Your task to perform on an android device: Open sound settings Image 0: 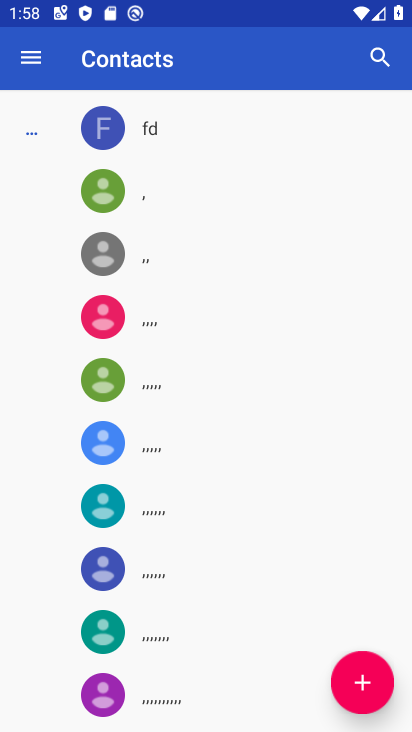
Step 0: press home button
Your task to perform on an android device: Open sound settings Image 1: 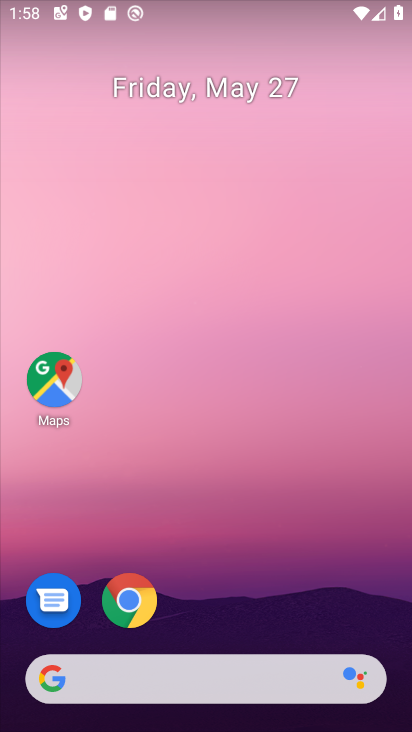
Step 1: drag from (222, 723) to (215, 122)
Your task to perform on an android device: Open sound settings Image 2: 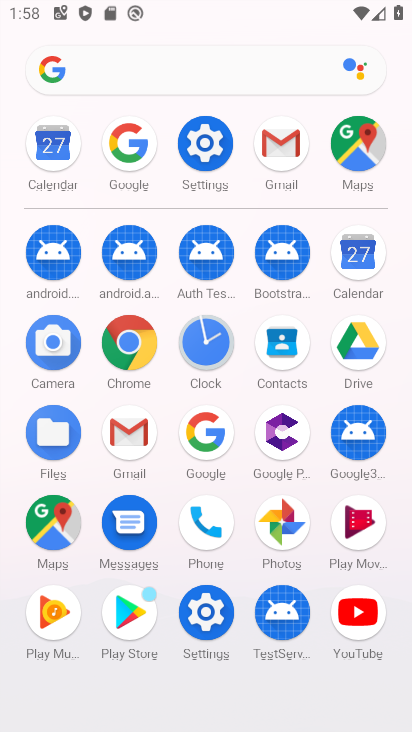
Step 2: click (199, 147)
Your task to perform on an android device: Open sound settings Image 3: 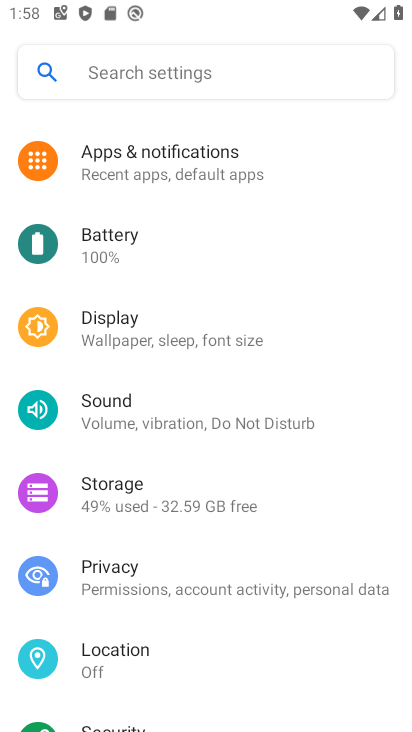
Step 3: click (110, 405)
Your task to perform on an android device: Open sound settings Image 4: 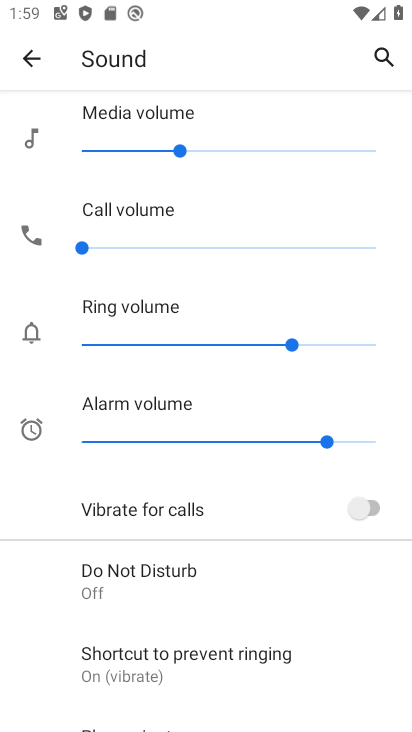
Step 4: task complete